Your task to perform on an android device: Open Maps and search for coffee Image 0: 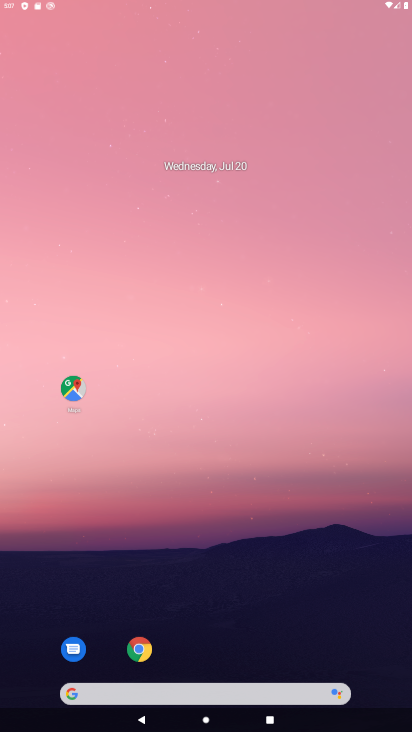
Step 0: click (228, 34)
Your task to perform on an android device: Open Maps and search for coffee Image 1: 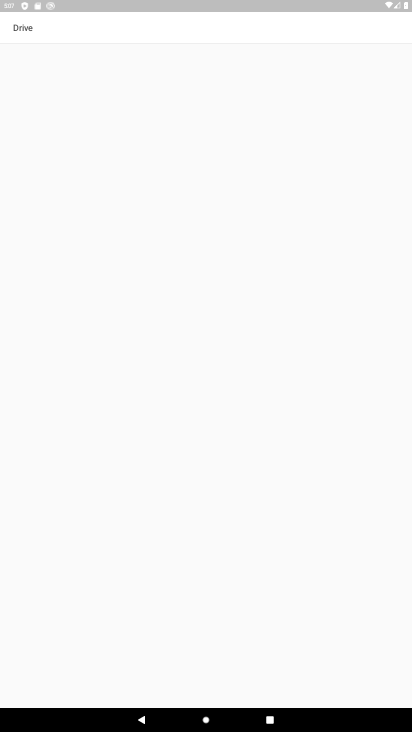
Step 1: press home button
Your task to perform on an android device: Open Maps and search for coffee Image 2: 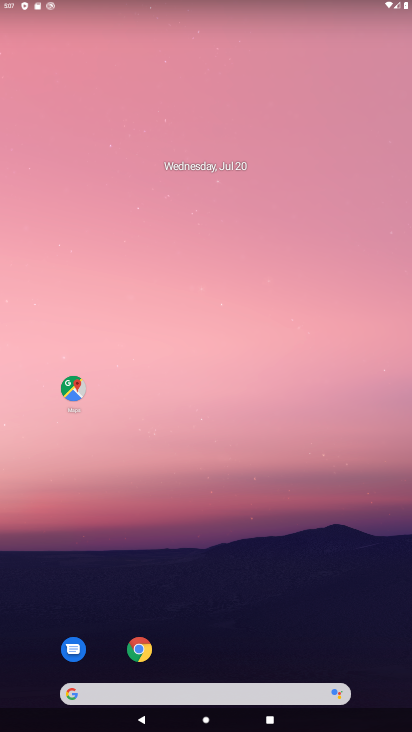
Step 2: drag from (256, 580) to (182, 0)
Your task to perform on an android device: Open Maps and search for coffee Image 3: 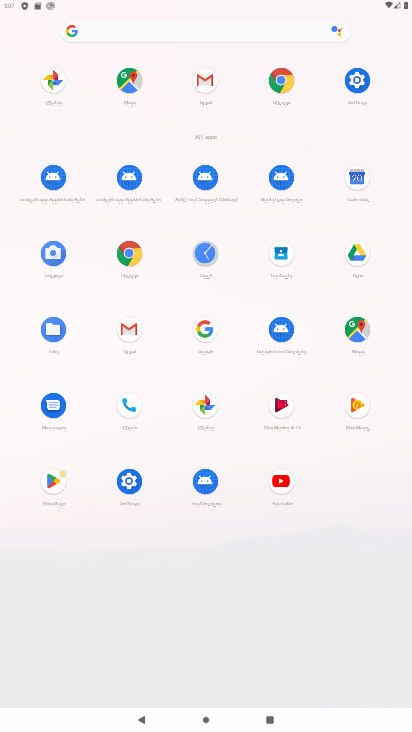
Step 3: click (361, 324)
Your task to perform on an android device: Open Maps and search for coffee Image 4: 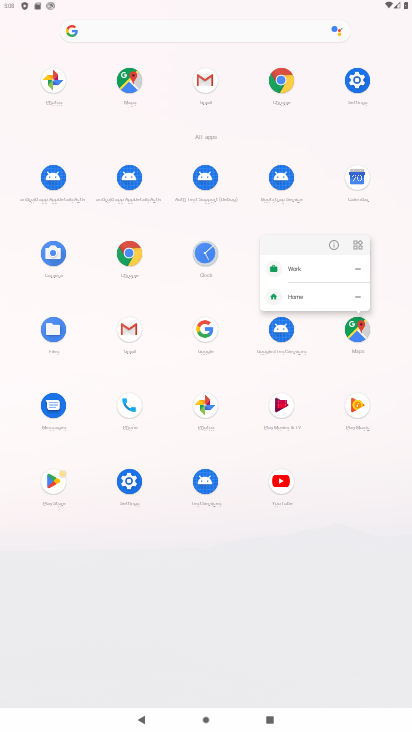
Step 4: click (361, 324)
Your task to perform on an android device: Open Maps and search for coffee Image 5: 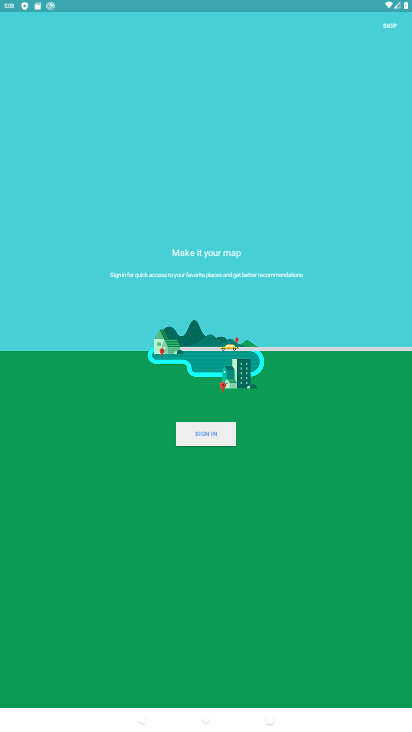
Step 5: task complete